Your task to perform on an android device: Go to CNN.com Image 0: 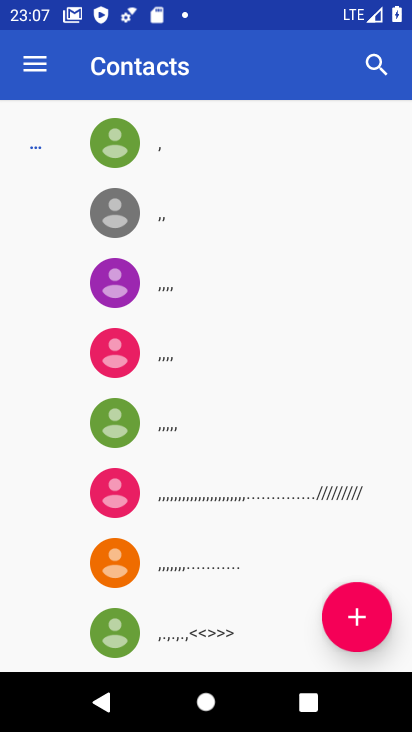
Step 0: press home button
Your task to perform on an android device: Go to CNN.com Image 1: 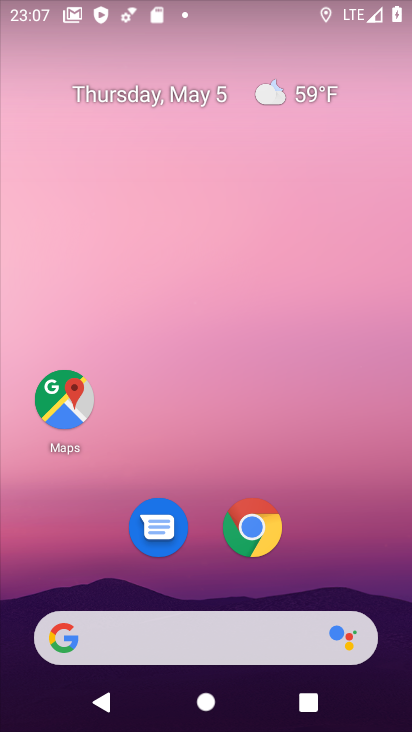
Step 1: click (261, 526)
Your task to perform on an android device: Go to CNN.com Image 2: 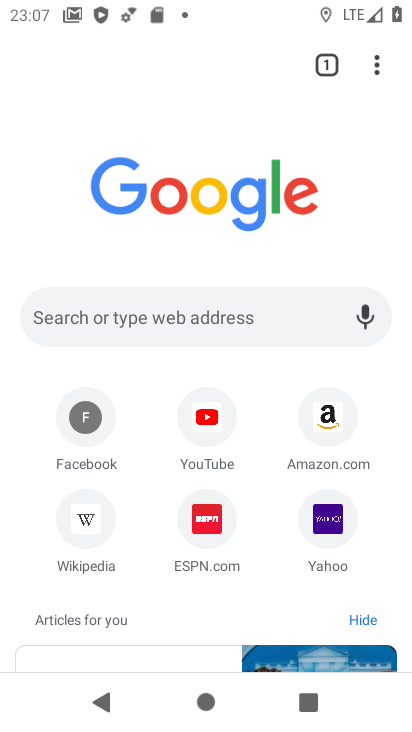
Step 2: click (219, 334)
Your task to perform on an android device: Go to CNN.com Image 3: 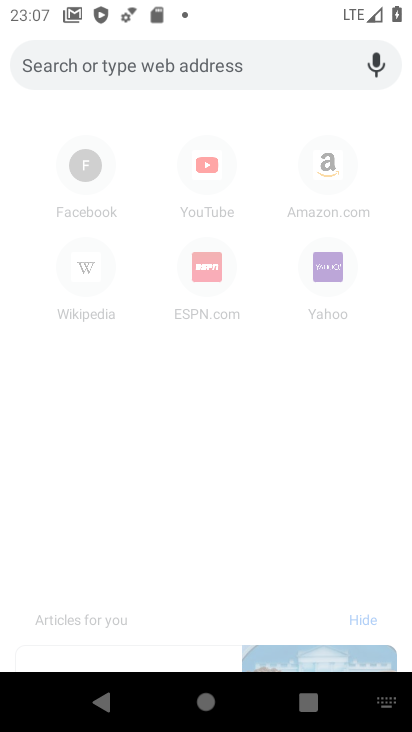
Step 3: type "CNN.com"
Your task to perform on an android device: Go to CNN.com Image 4: 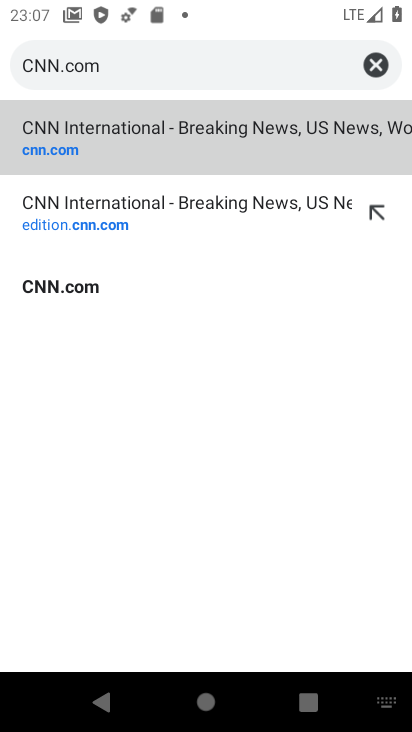
Step 4: click (85, 277)
Your task to perform on an android device: Go to CNN.com Image 5: 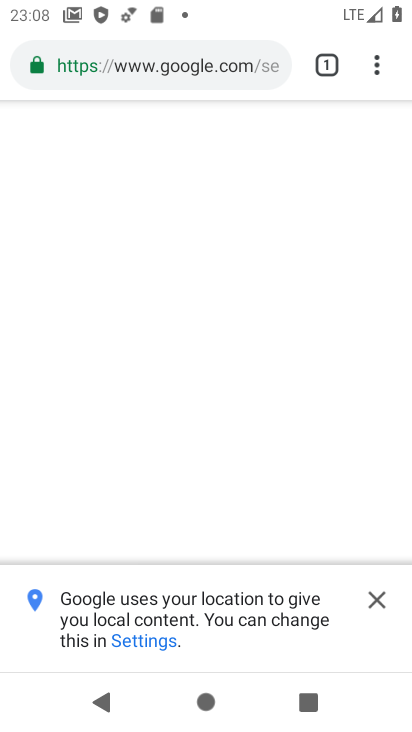
Step 5: click (368, 597)
Your task to perform on an android device: Go to CNN.com Image 6: 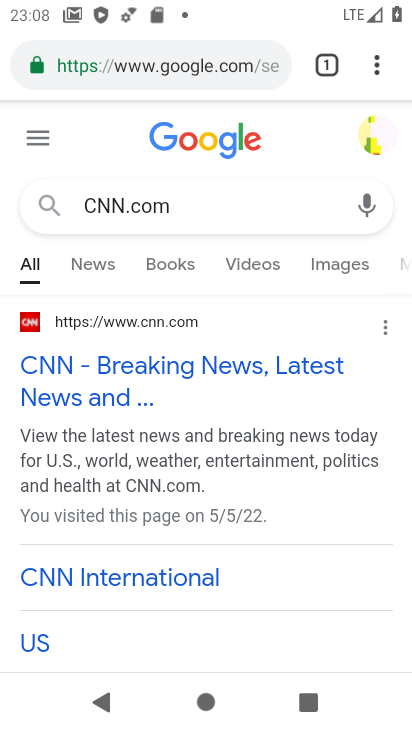
Step 6: task complete